Your task to perform on an android device: turn off airplane mode Image 0: 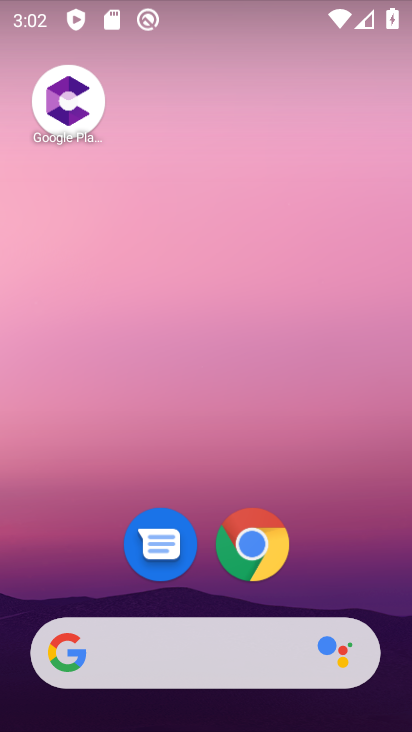
Step 0: drag from (257, 4) to (312, 529)
Your task to perform on an android device: turn off airplane mode Image 1: 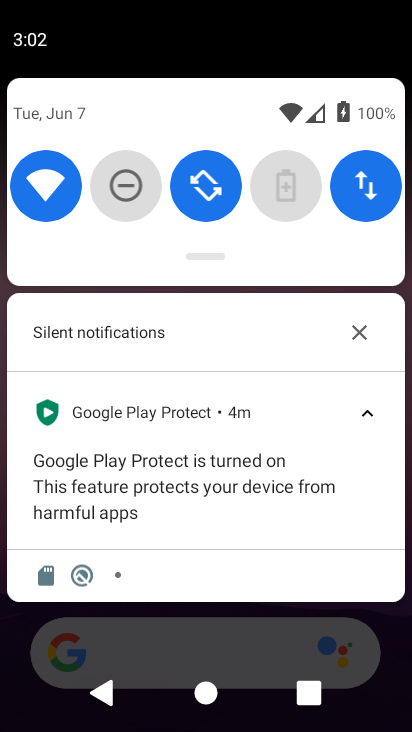
Step 1: task complete